Your task to perform on an android device: set the stopwatch Image 0: 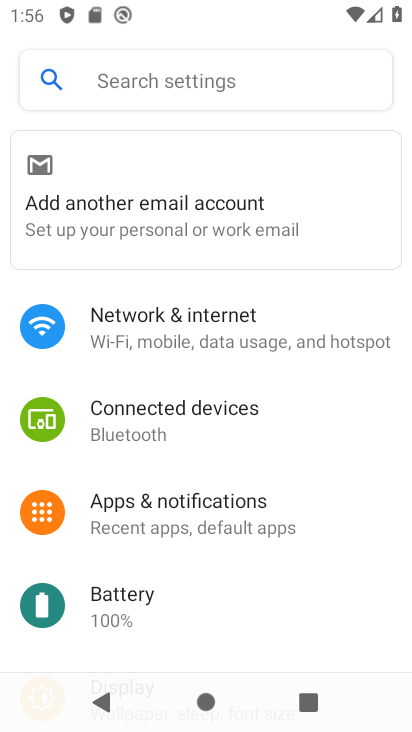
Step 0: press back button
Your task to perform on an android device: set the stopwatch Image 1: 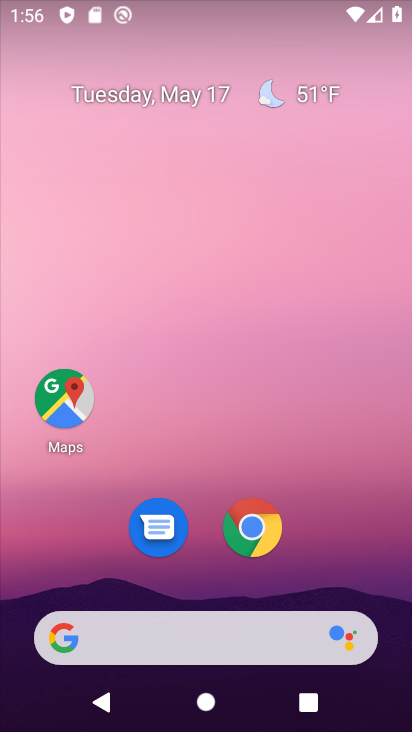
Step 1: drag from (325, 553) to (217, 83)
Your task to perform on an android device: set the stopwatch Image 2: 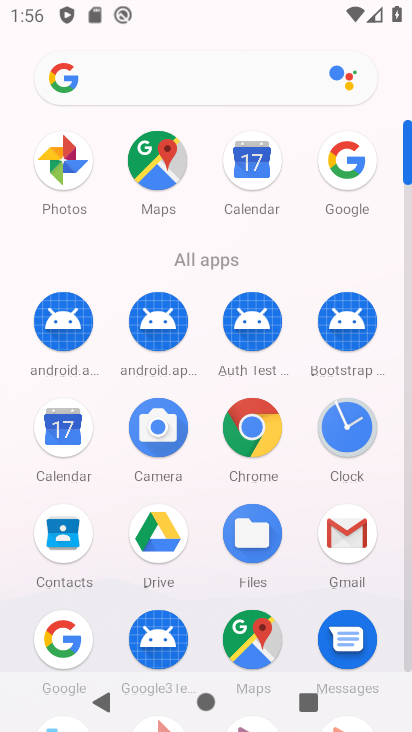
Step 2: drag from (202, 470) to (218, 313)
Your task to perform on an android device: set the stopwatch Image 3: 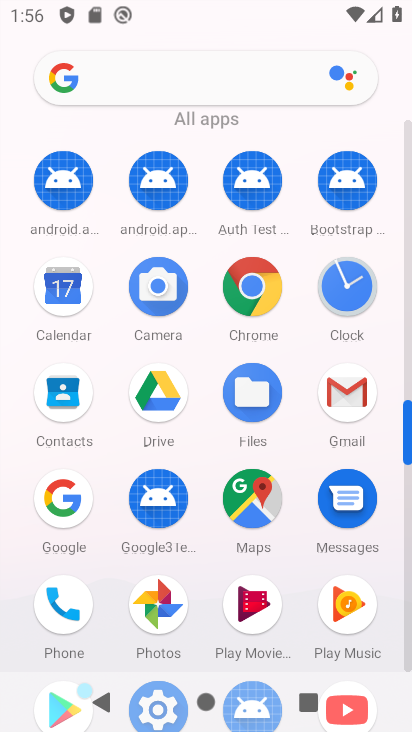
Step 3: click (345, 286)
Your task to perform on an android device: set the stopwatch Image 4: 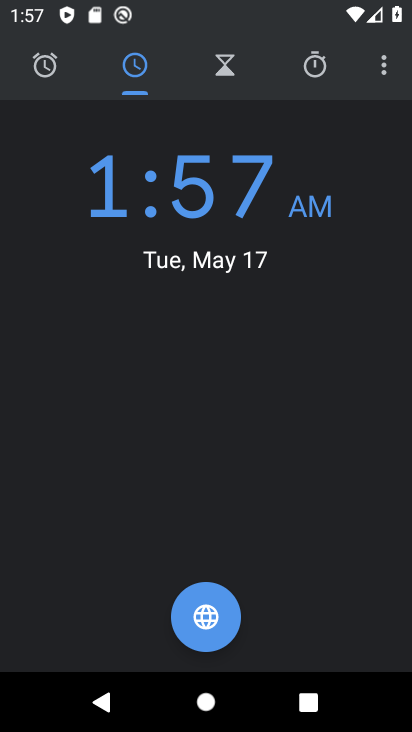
Step 4: click (320, 67)
Your task to perform on an android device: set the stopwatch Image 5: 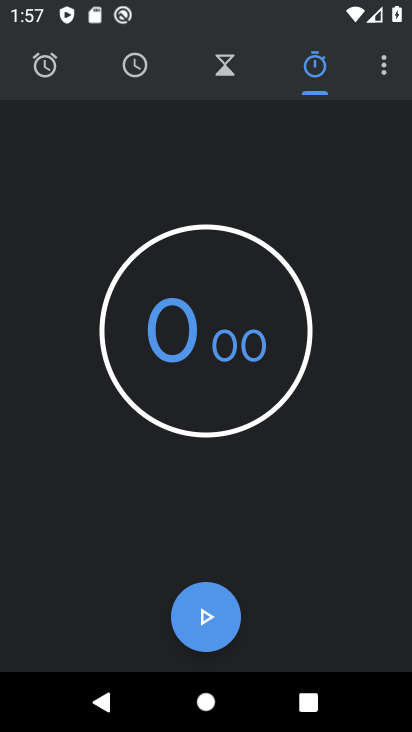
Step 5: click (208, 618)
Your task to perform on an android device: set the stopwatch Image 6: 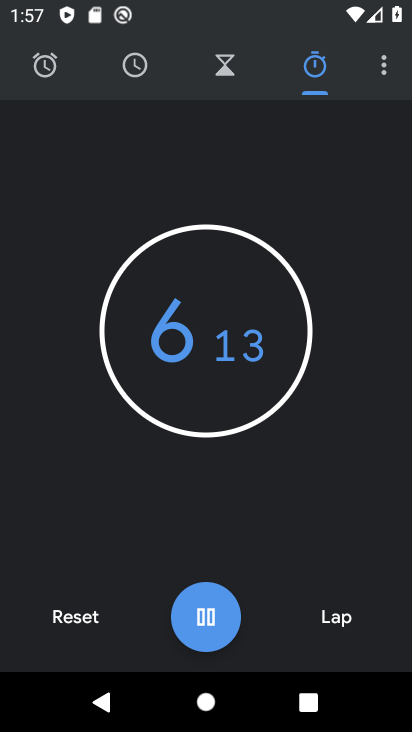
Step 6: click (202, 617)
Your task to perform on an android device: set the stopwatch Image 7: 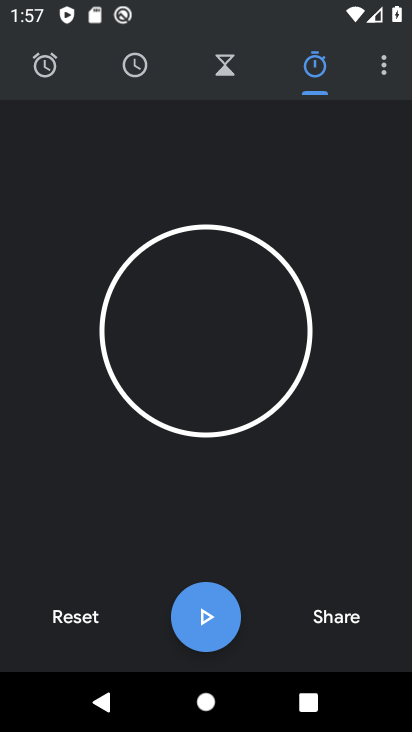
Step 7: task complete